Your task to perform on an android device: visit the assistant section in the google photos Image 0: 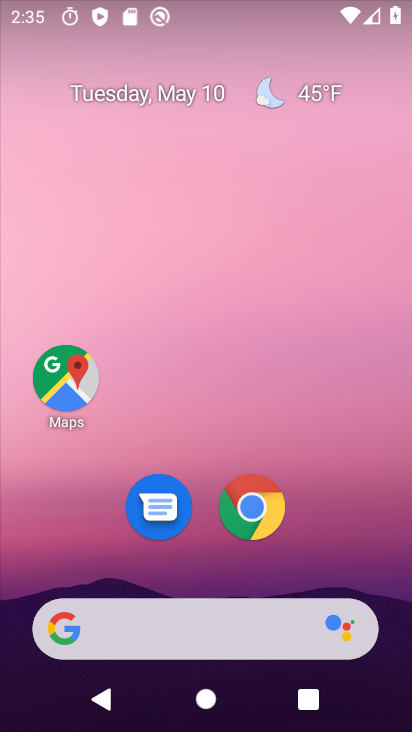
Step 0: drag from (160, 572) to (126, 253)
Your task to perform on an android device: visit the assistant section in the google photos Image 1: 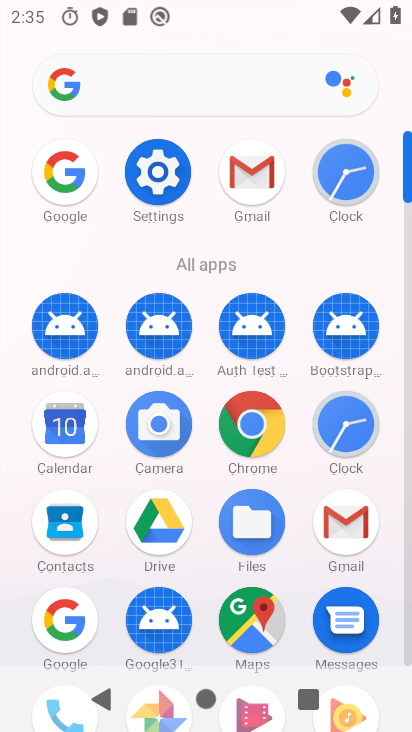
Step 1: drag from (200, 605) to (201, 285)
Your task to perform on an android device: visit the assistant section in the google photos Image 2: 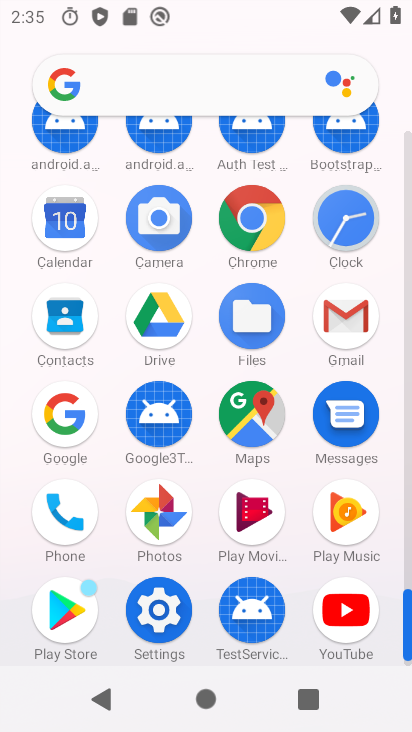
Step 2: click (161, 516)
Your task to perform on an android device: visit the assistant section in the google photos Image 3: 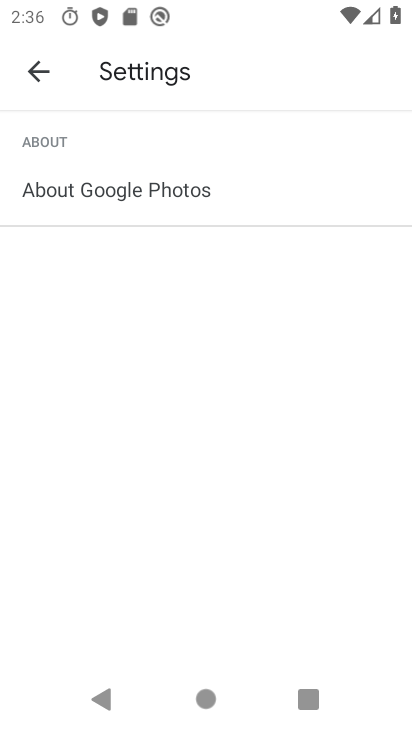
Step 3: press home button
Your task to perform on an android device: visit the assistant section in the google photos Image 4: 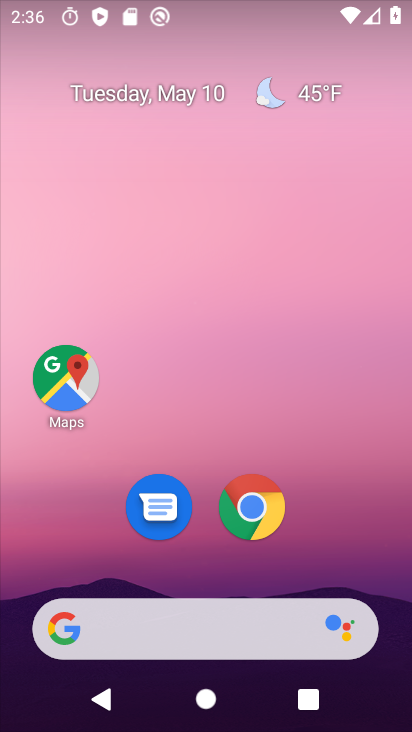
Step 4: drag from (207, 564) to (188, 75)
Your task to perform on an android device: visit the assistant section in the google photos Image 5: 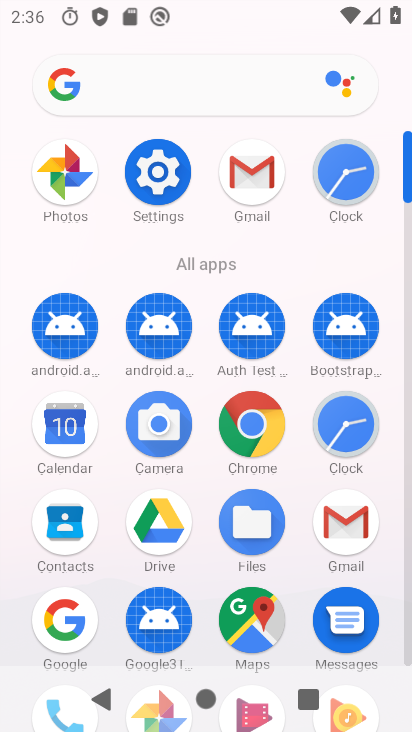
Step 5: drag from (129, 641) to (76, 318)
Your task to perform on an android device: visit the assistant section in the google photos Image 6: 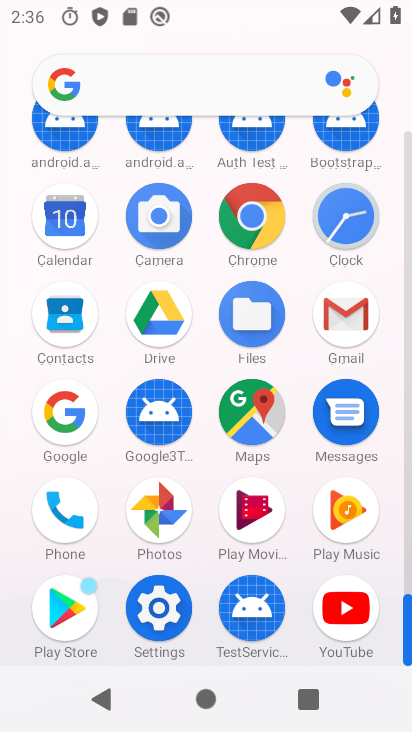
Step 6: click (167, 523)
Your task to perform on an android device: visit the assistant section in the google photos Image 7: 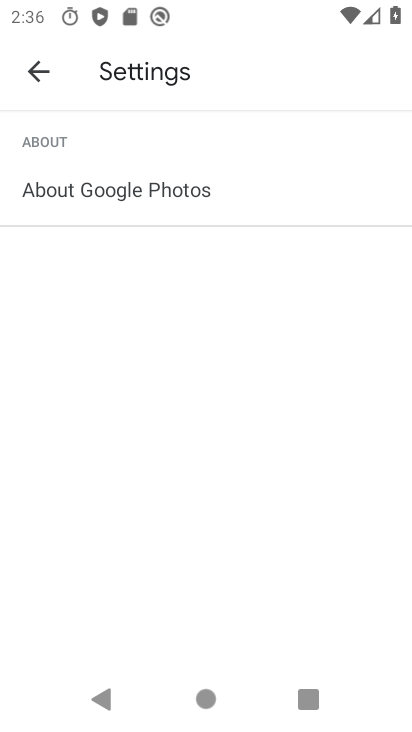
Step 7: click (33, 66)
Your task to perform on an android device: visit the assistant section in the google photos Image 8: 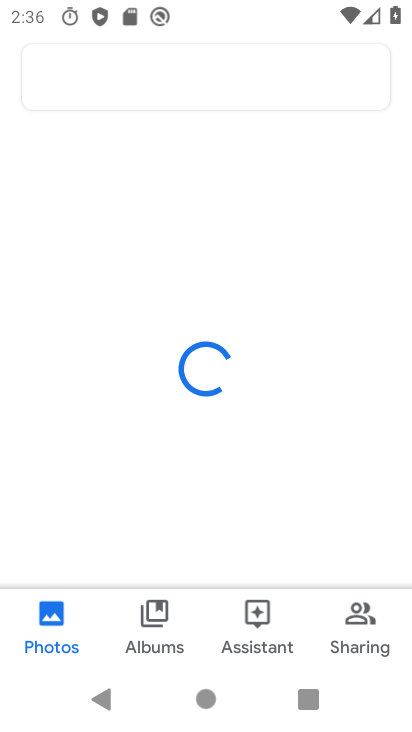
Step 8: click (261, 623)
Your task to perform on an android device: visit the assistant section in the google photos Image 9: 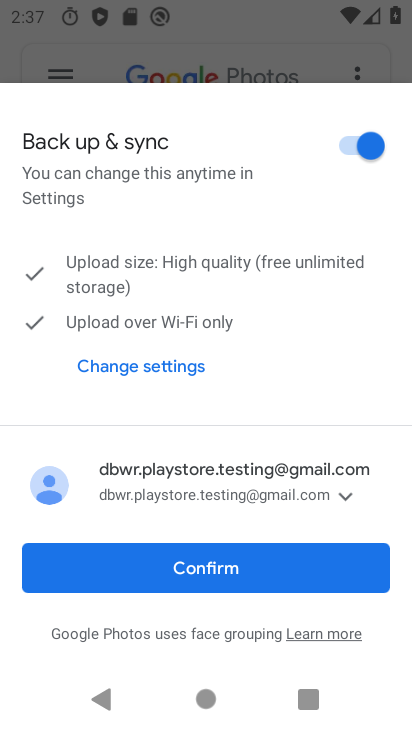
Step 9: click (225, 581)
Your task to perform on an android device: visit the assistant section in the google photos Image 10: 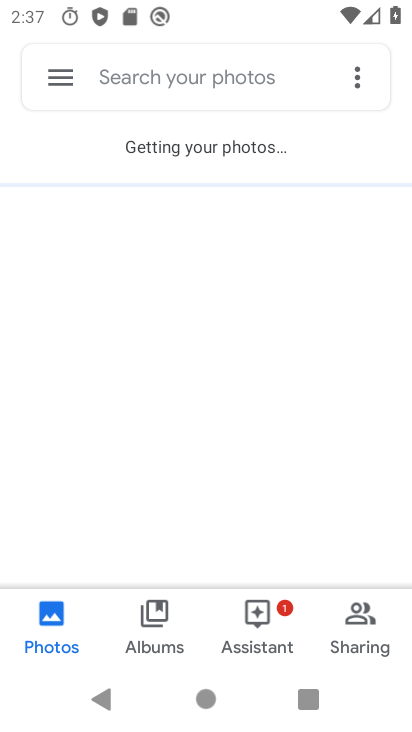
Step 10: click (255, 608)
Your task to perform on an android device: visit the assistant section in the google photos Image 11: 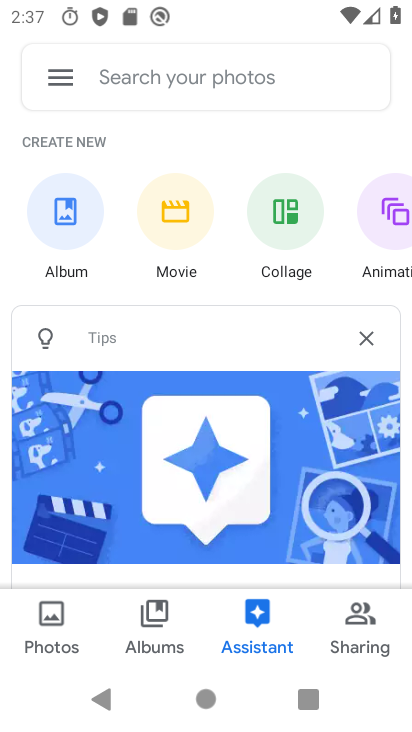
Step 11: task complete